Your task to perform on an android device: Open Yahoo.com Image 0: 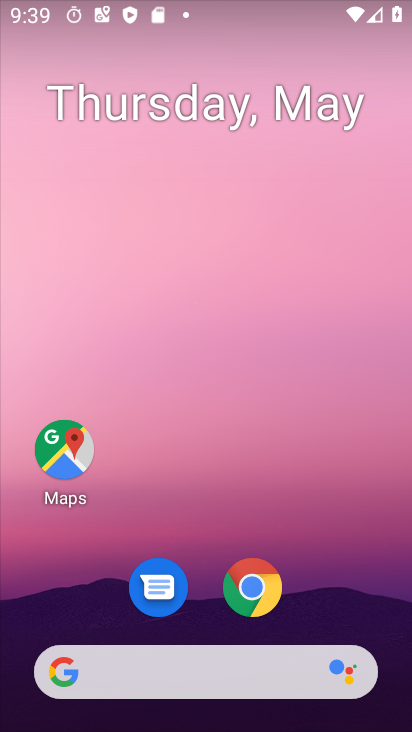
Step 0: click (248, 587)
Your task to perform on an android device: Open Yahoo.com Image 1: 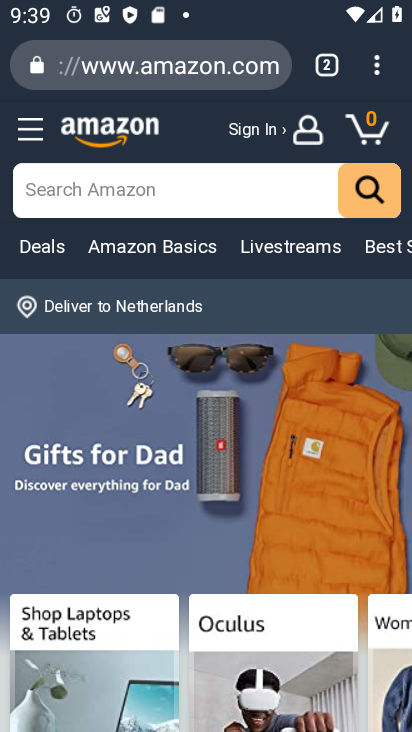
Step 1: click (121, 61)
Your task to perform on an android device: Open Yahoo.com Image 2: 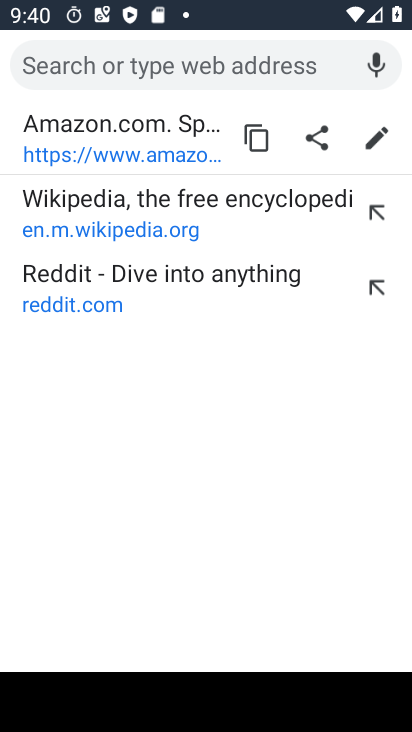
Step 2: type "yahoo.com"
Your task to perform on an android device: Open Yahoo.com Image 3: 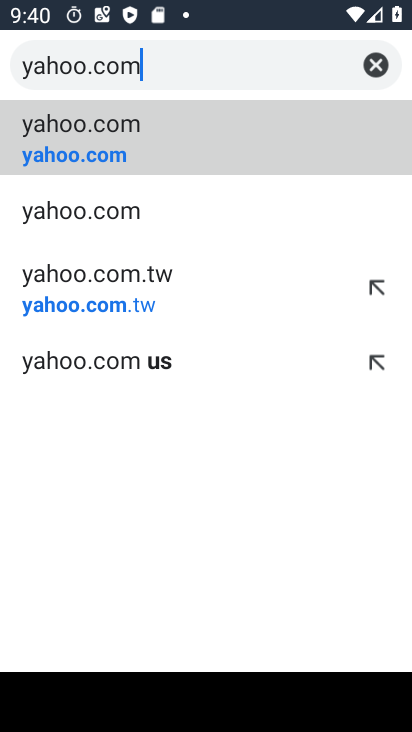
Step 3: click (82, 162)
Your task to perform on an android device: Open Yahoo.com Image 4: 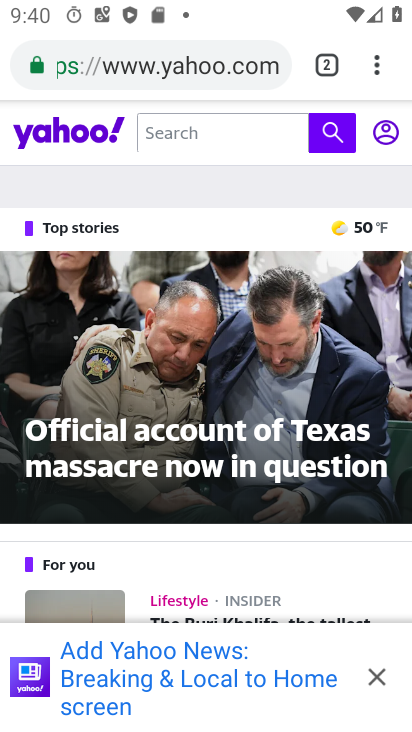
Step 4: task complete